Your task to perform on an android device: Toggle the flashlight Image 0: 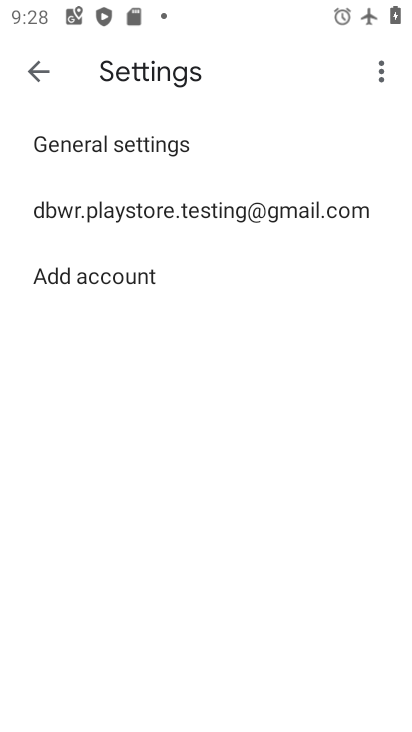
Step 0: drag from (276, 5) to (333, 450)
Your task to perform on an android device: Toggle the flashlight Image 1: 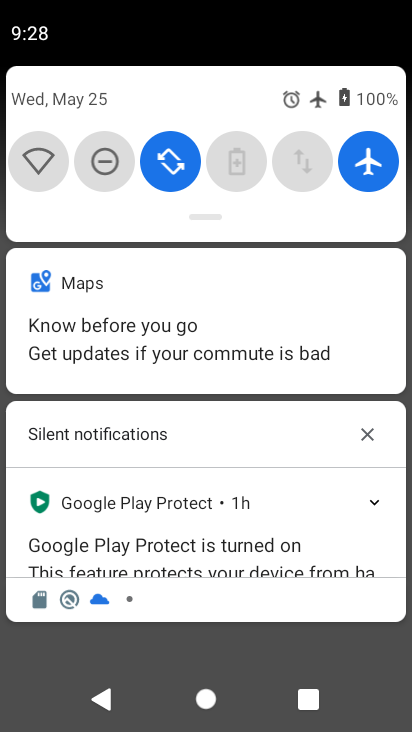
Step 1: task complete